Your task to perform on an android device: turn on wifi Image 0: 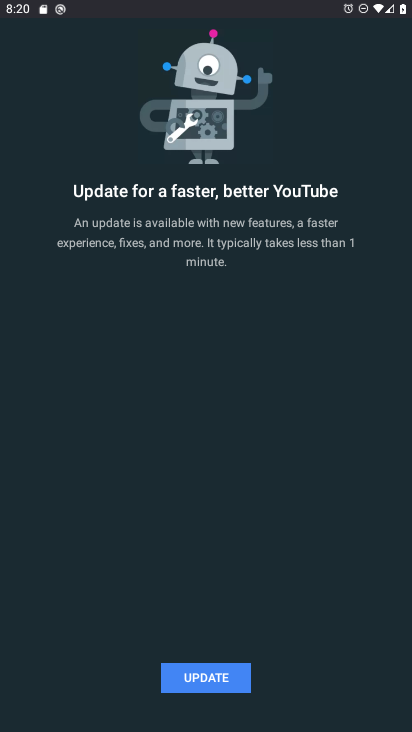
Step 0: press home button
Your task to perform on an android device: turn on wifi Image 1: 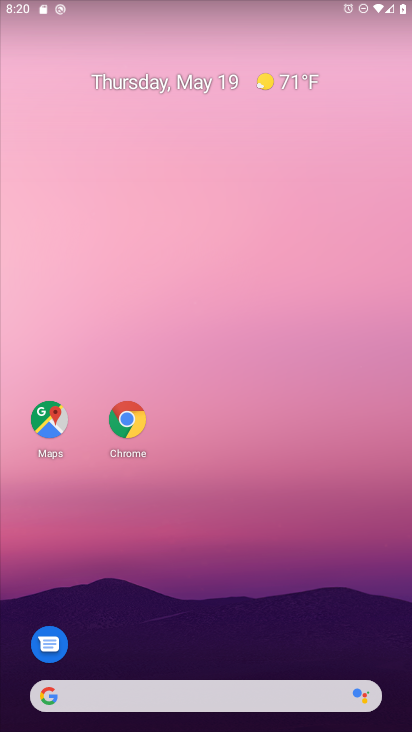
Step 1: drag from (123, 674) to (184, 307)
Your task to perform on an android device: turn on wifi Image 2: 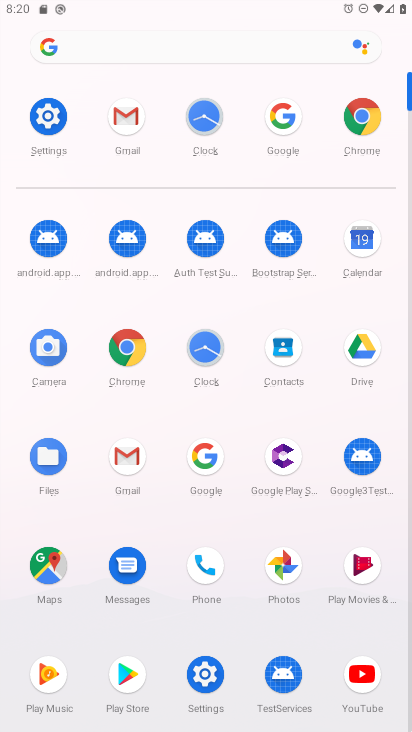
Step 2: click (58, 121)
Your task to perform on an android device: turn on wifi Image 3: 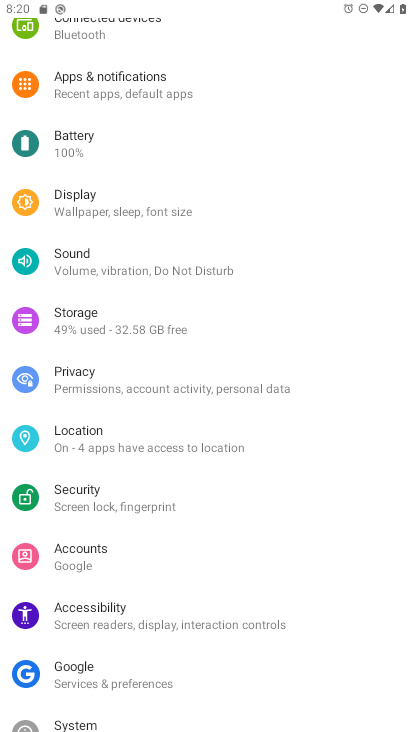
Step 3: drag from (138, 57) to (173, 538)
Your task to perform on an android device: turn on wifi Image 4: 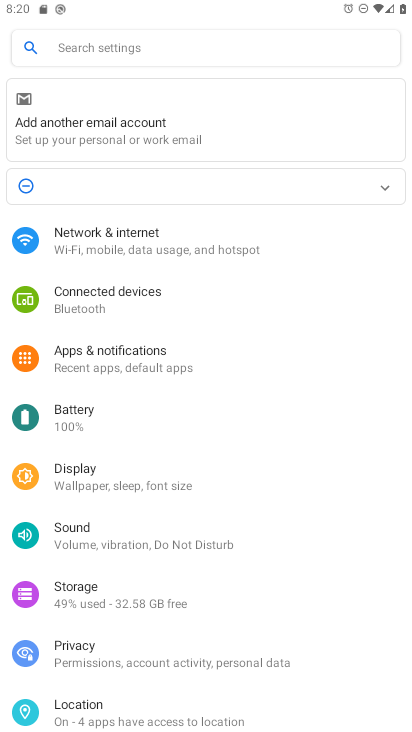
Step 4: click (106, 251)
Your task to perform on an android device: turn on wifi Image 5: 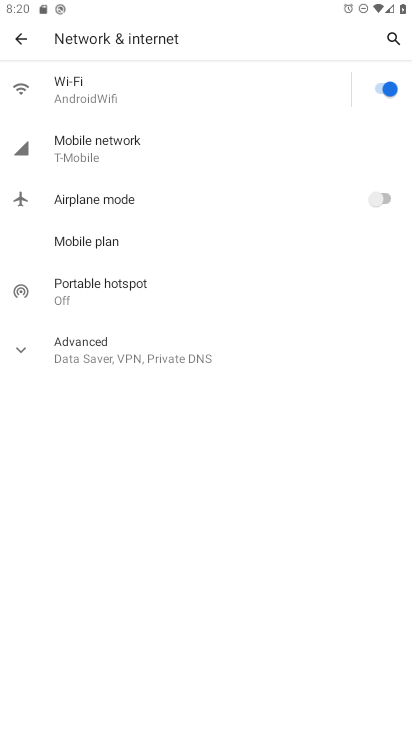
Step 5: task complete